Your task to perform on an android device: check android version Image 0: 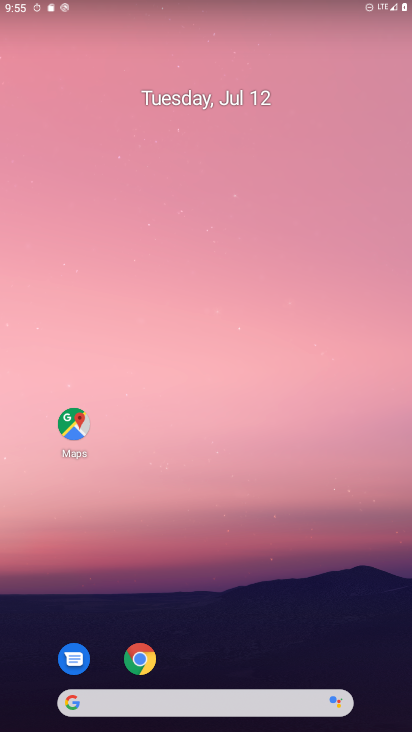
Step 0: drag from (384, 701) to (288, 18)
Your task to perform on an android device: check android version Image 1: 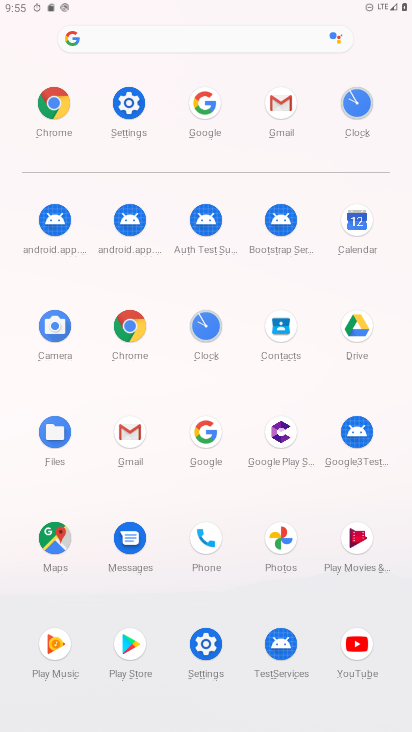
Step 1: click (207, 641)
Your task to perform on an android device: check android version Image 2: 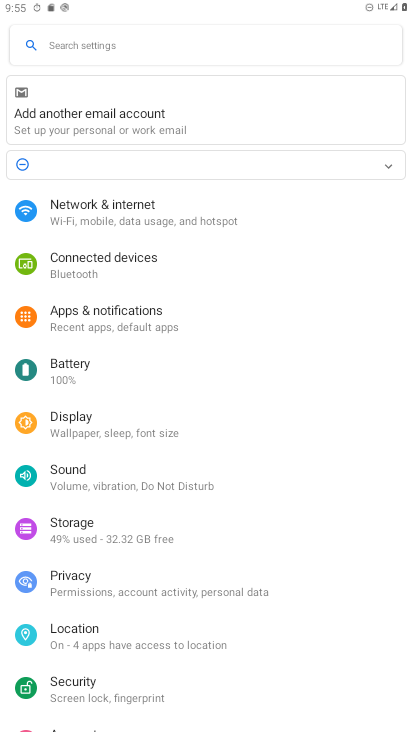
Step 2: drag from (169, 676) to (237, 2)
Your task to perform on an android device: check android version Image 3: 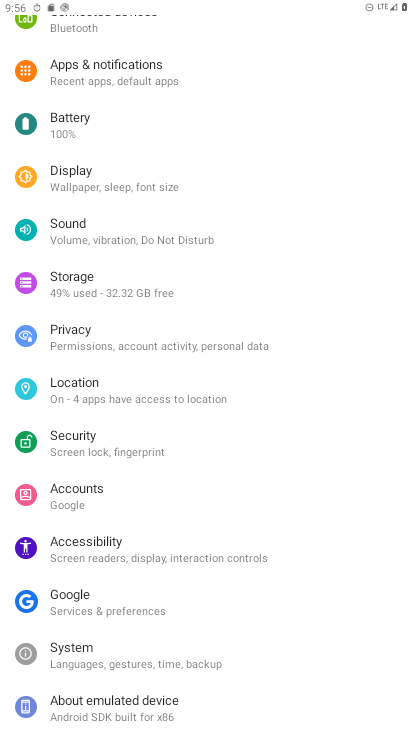
Step 3: click (130, 700)
Your task to perform on an android device: check android version Image 4: 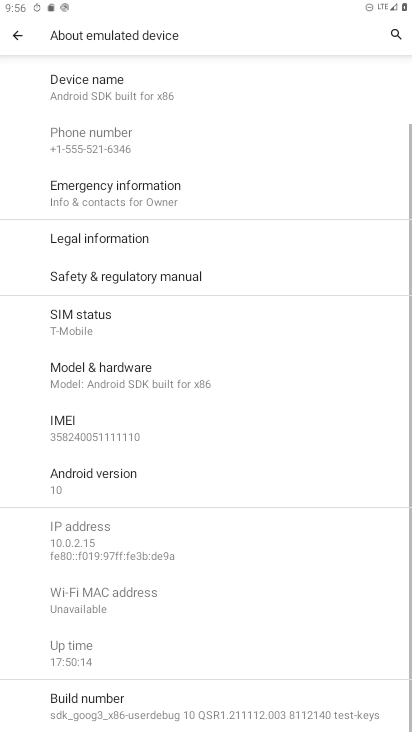
Step 4: click (152, 474)
Your task to perform on an android device: check android version Image 5: 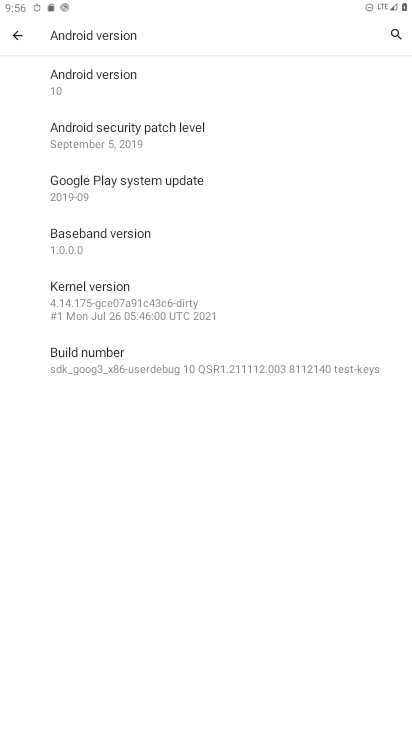
Step 5: task complete